Your task to perform on an android device: move a message to another label in the gmail app Image 0: 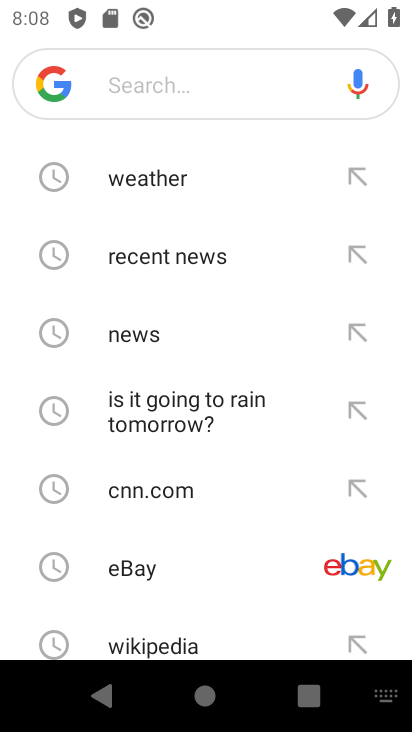
Step 0: press home button
Your task to perform on an android device: move a message to another label in the gmail app Image 1: 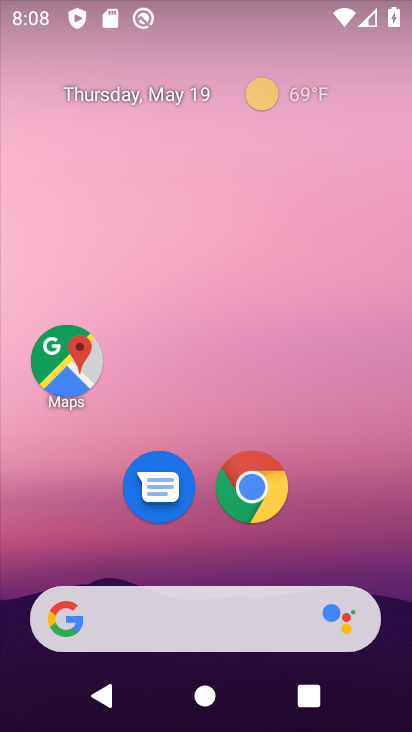
Step 1: drag from (202, 555) to (222, 129)
Your task to perform on an android device: move a message to another label in the gmail app Image 2: 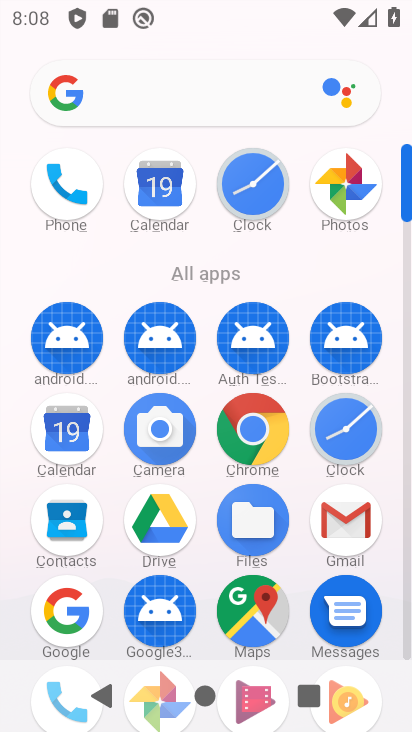
Step 2: click (357, 510)
Your task to perform on an android device: move a message to another label in the gmail app Image 3: 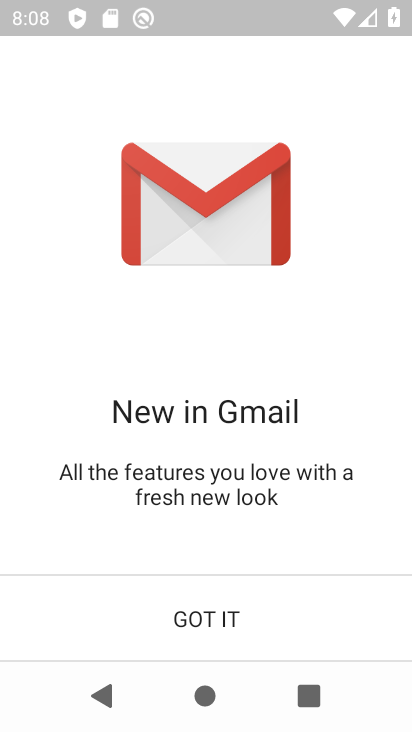
Step 3: click (249, 630)
Your task to perform on an android device: move a message to another label in the gmail app Image 4: 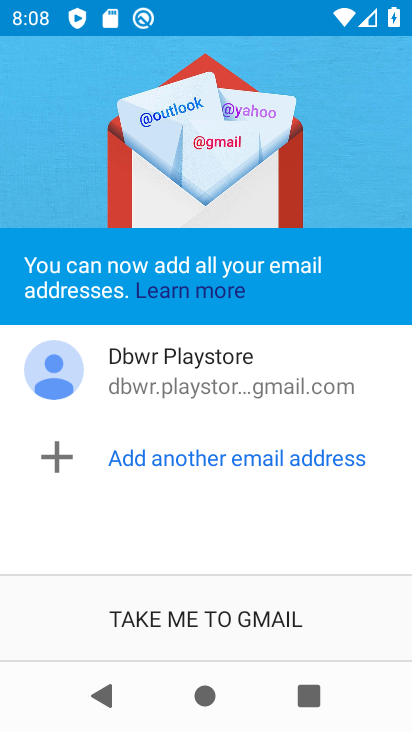
Step 4: click (262, 597)
Your task to perform on an android device: move a message to another label in the gmail app Image 5: 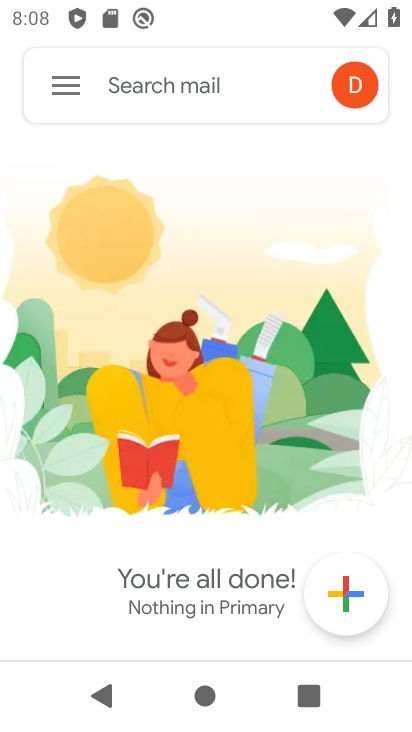
Step 5: task complete